Your task to perform on an android device: Open CNN.com Image 0: 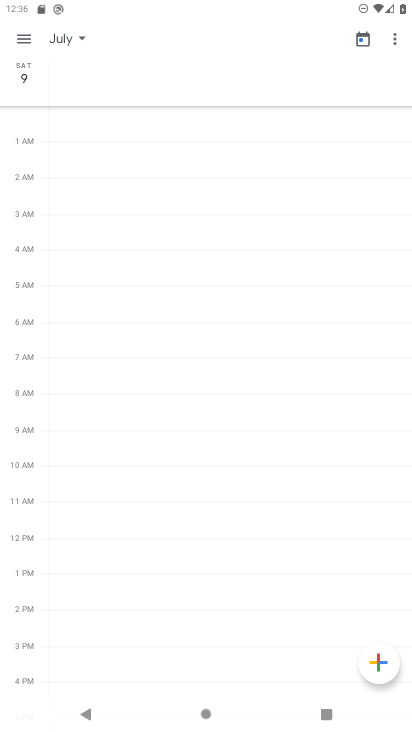
Step 0: press home button
Your task to perform on an android device: Open CNN.com Image 1: 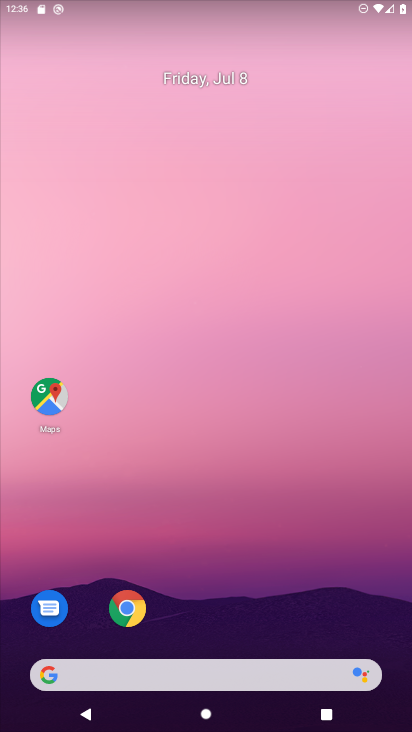
Step 1: click (124, 608)
Your task to perform on an android device: Open CNN.com Image 2: 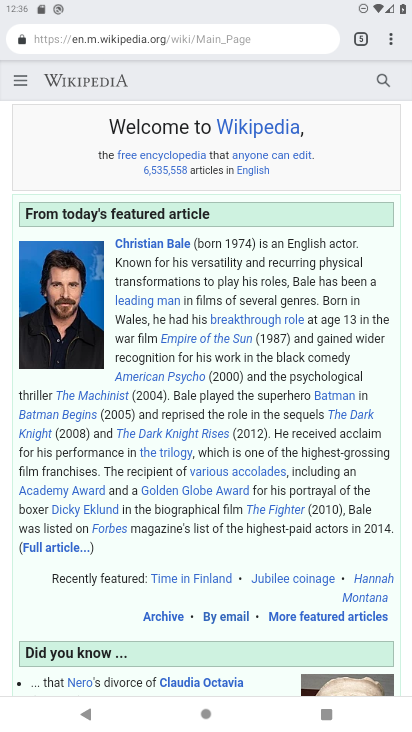
Step 2: click (389, 43)
Your task to perform on an android device: Open CNN.com Image 3: 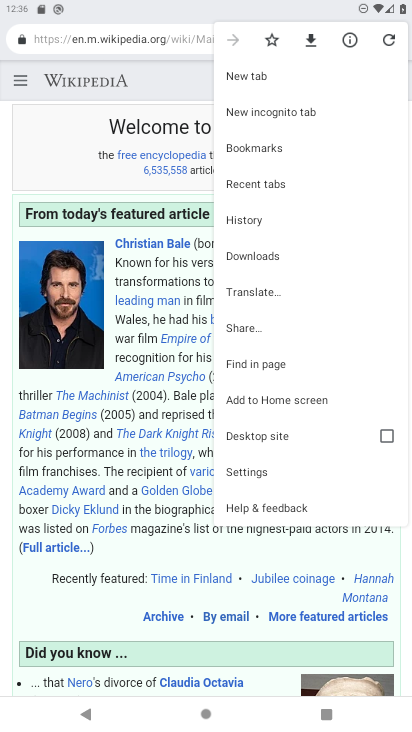
Step 3: click (246, 75)
Your task to perform on an android device: Open CNN.com Image 4: 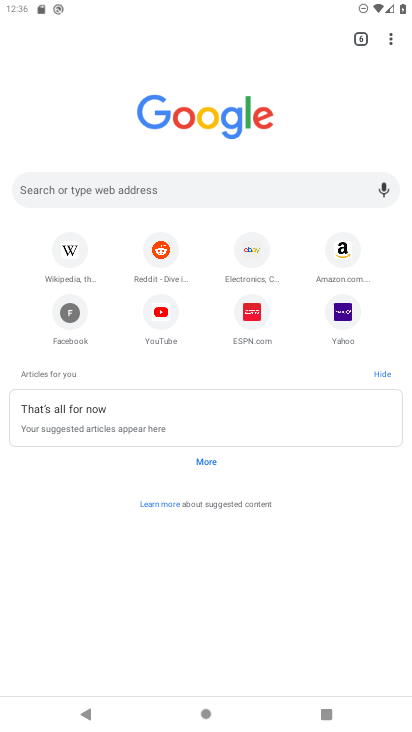
Step 4: click (245, 179)
Your task to perform on an android device: Open CNN.com Image 5: 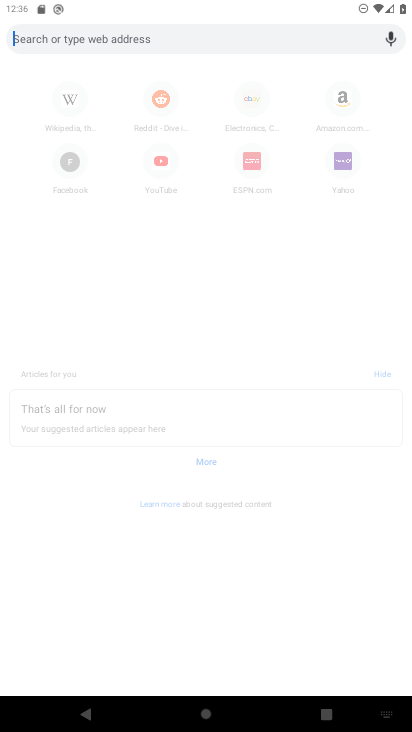
Step 5: type "CNN.com"
Your task to perform on an android device: Open CNN.com Image 6: 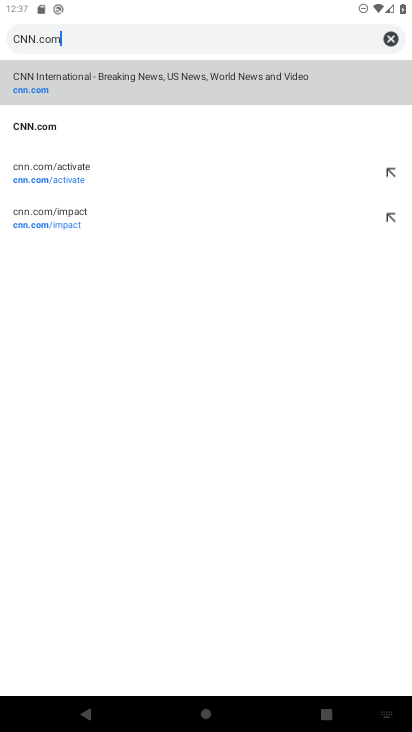
Step 6: click (57, 85)
Your task to perform on an android device: Open CNN.com Image 7: 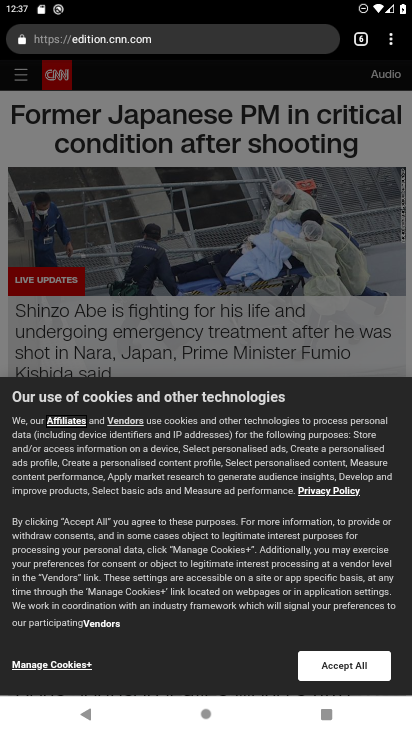
Step 7: task complete